Your task to perform on an android device: Turn on the flashlight Image 0: 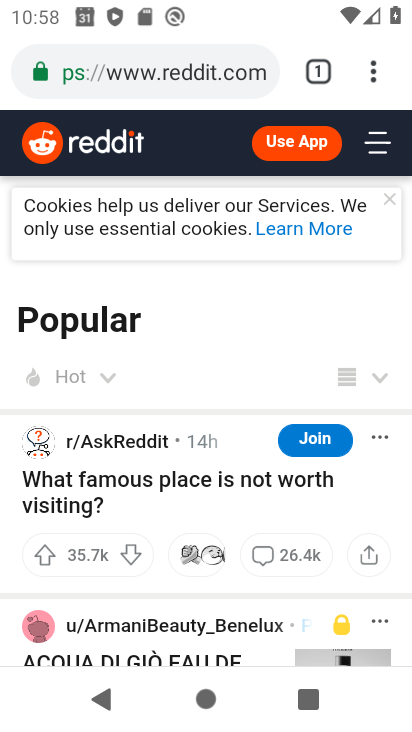
Step 0: press home button
Your task to perform on an android device: Turn on the flashlight Image 1: 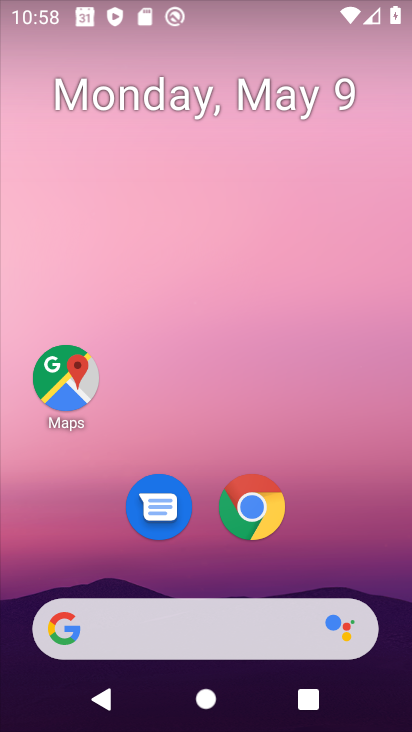
Step 1: drag from (316, 315) to (309, 45)
Your task to perform on an android device: Turn on the flashlight Image 2: 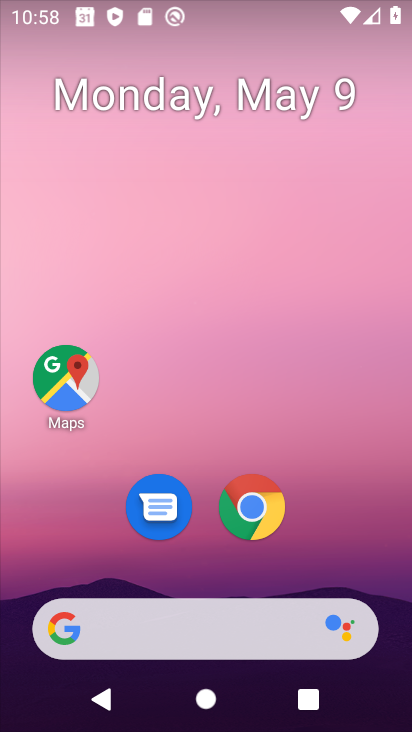
Step 2: drag from (316, 555) to (282, 162)
Your task to perform on an android device: Turn on the flashlight Image 3: 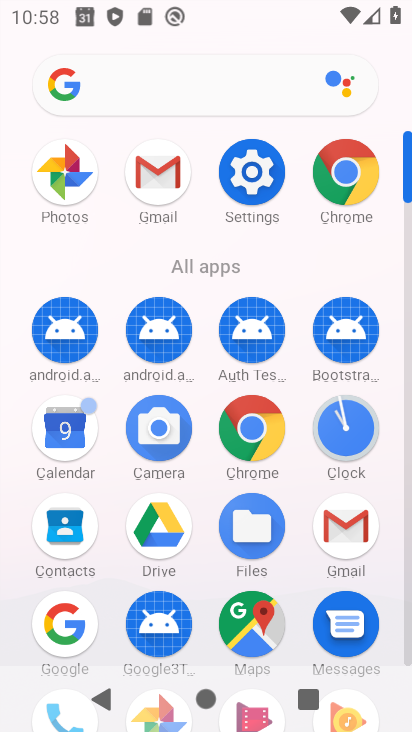
Step 3: click (257, 176)
Your task to perform on an android device: Turn on the flashlight Image 4: 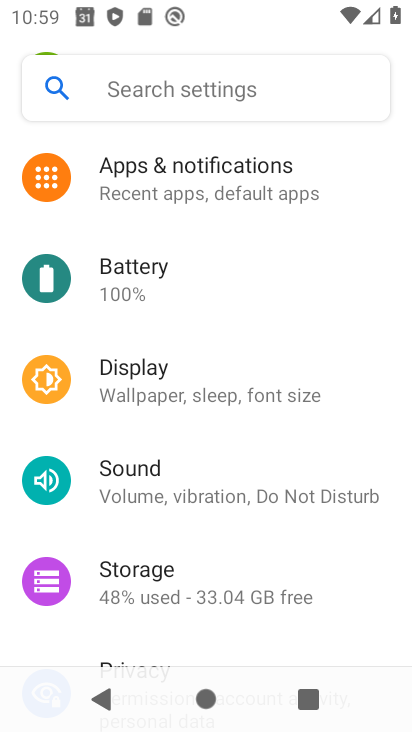
Step 4: click (197, 398)
Your task to perform on an android device: Turn on the flashlight Image 5: 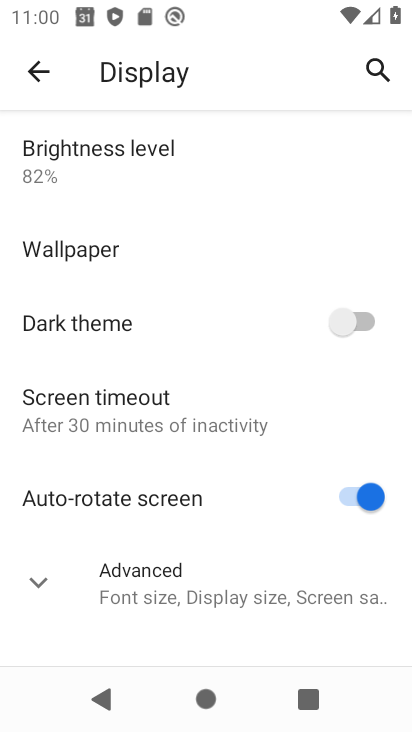
Step 5: click (221, 584)
Your task to perform on an android device: Turn on the flashlight Image 6: 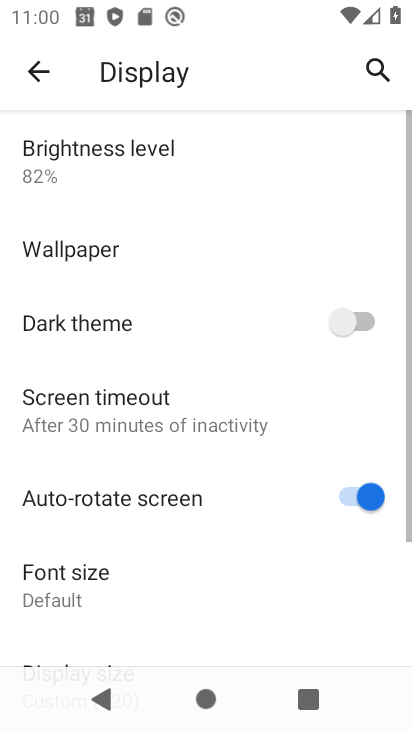
Step 6: task complete